Your task to perform on an android device: turn on priority inbox in the gmail app Image 0: 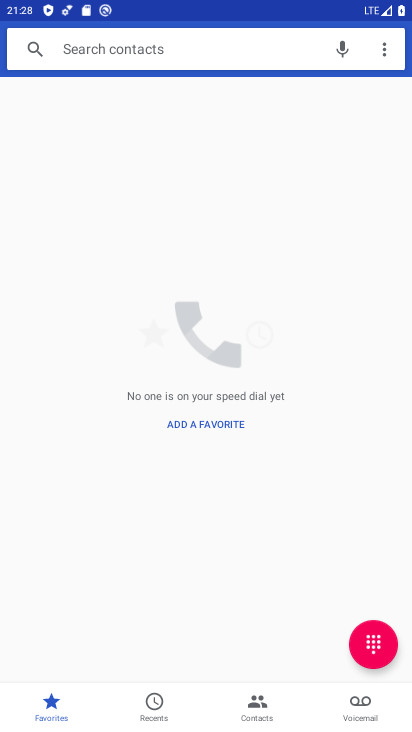
Step 0: press home button
Your task to perform on an android device: turn on priority inbox in the gmail app Image 1: 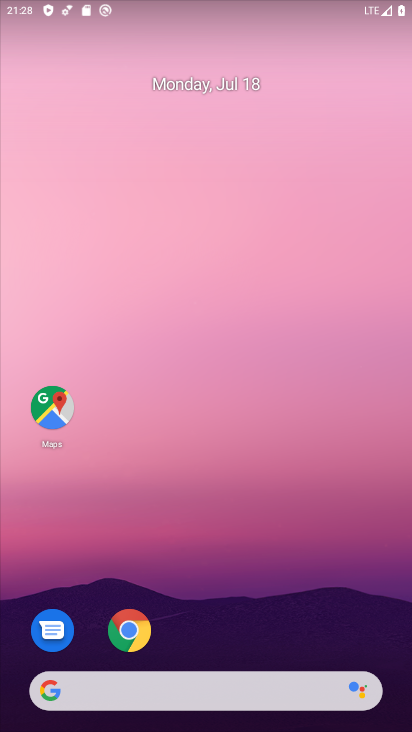
Step 1: drag from (212, 618) to (212, 9)
Your task to perform on an android device: turn on priority inbox in the gmail app Image 2: 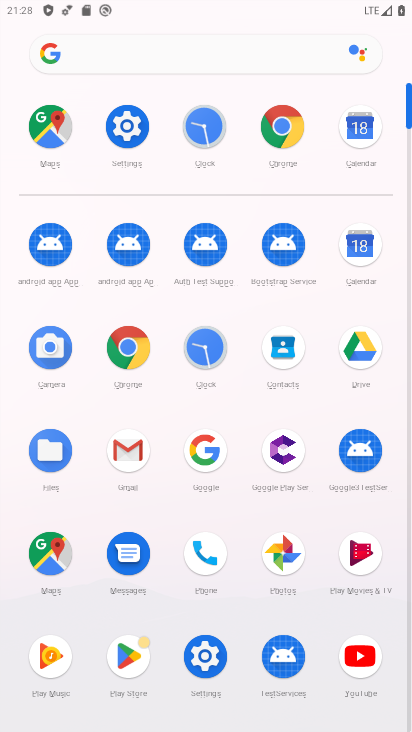
Step 2: click (124, 456)
Your task to perform on an android device: turn on priority inbox in the gmail app Image 3: 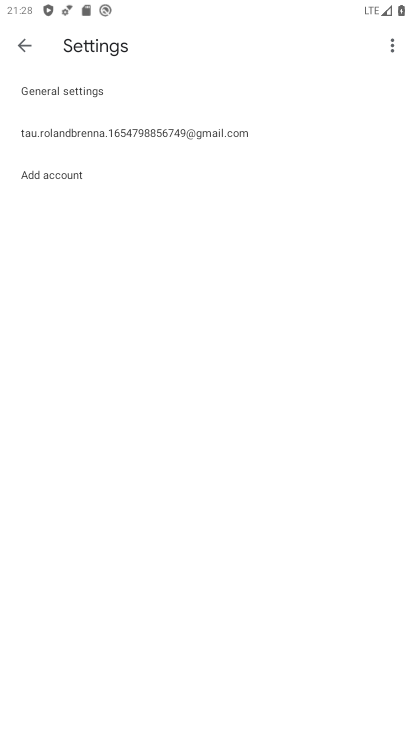
Step 3: click (24, 39)
Your task to perform on an android device: turn on priority inbox in the gmail app Image 4: 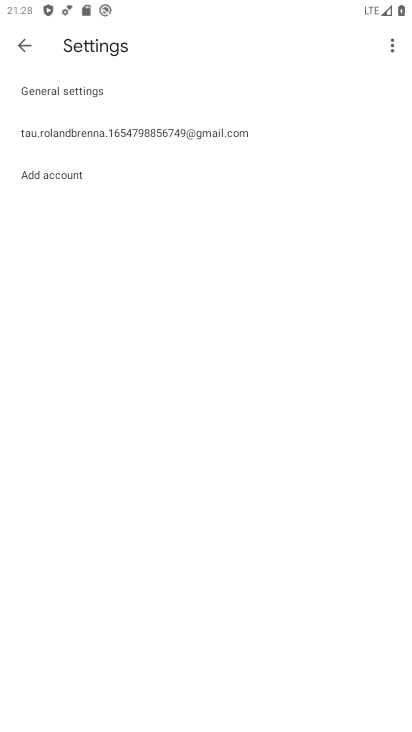
Step 4: click (24, 39)
Your task to perform on an android device: turn on priority inbox in the gmail app Image 5: 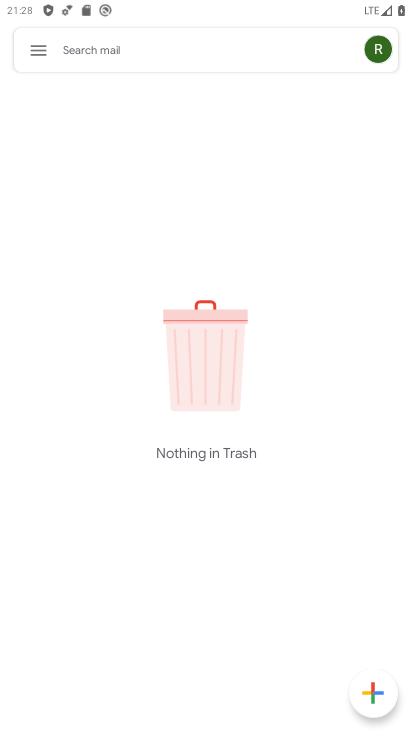
Step 5: click (34, 46)
Your task to perform on an android device: turn on priority inbox in the gmail app Image 6: 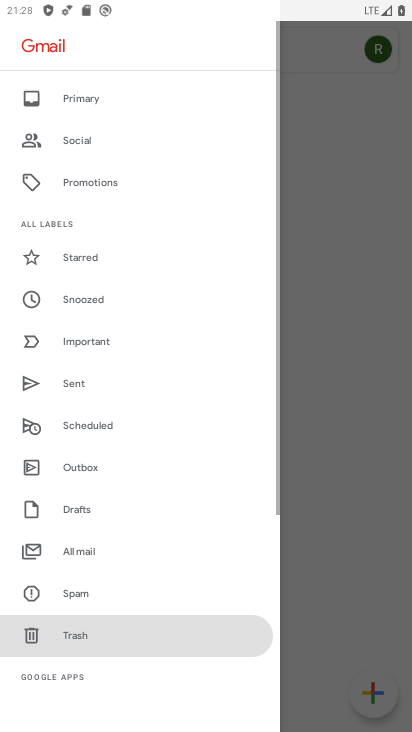
Step 6: drag from (107, 633) to (136, 275)
Your task to perform on an android device: turn on priority inbox in the gmail app Image 7: 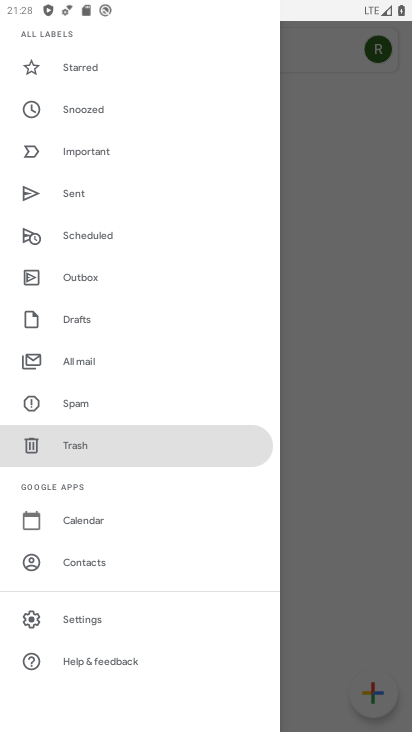
Step 7: click (111, 613)
Your task to perform on an android device: turn on priority inbox in the gmail app Image 8: 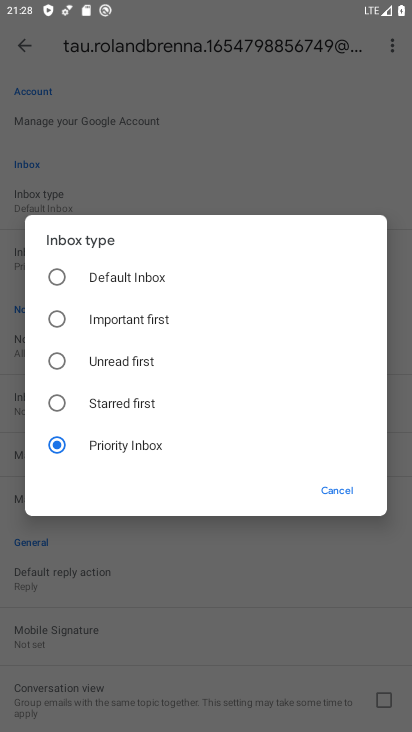
Step 8: task complete